Your task to perform on an android device: Open Android settings Image 0: 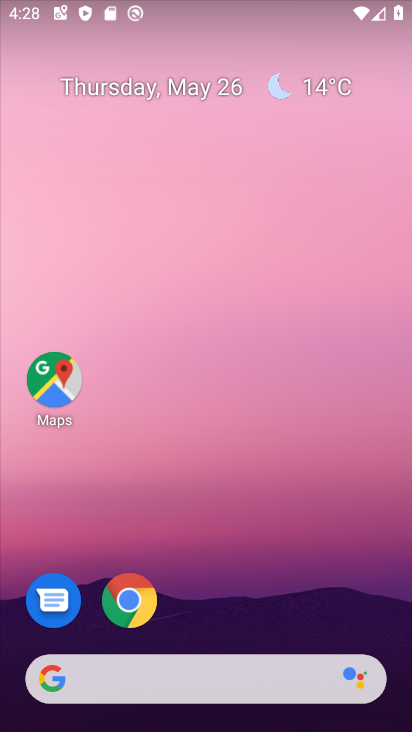
Step 0: drag from (263, 183) to (346, 166)
Your task to perform on an android device: Open Android settings Image 1: 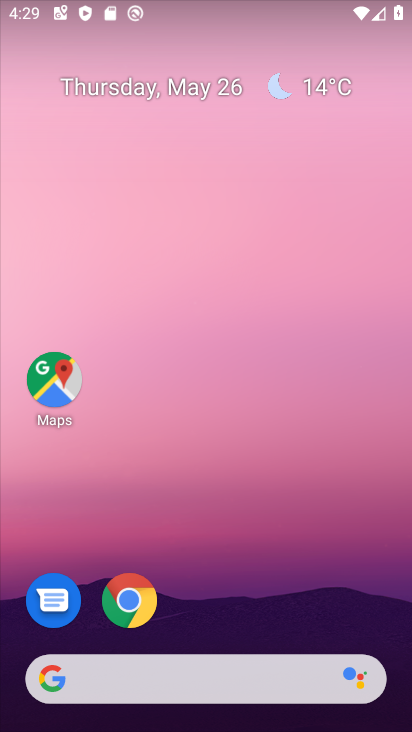
Step 1: drag from (210, 622) to (404, 147)
Your task to perform on an android device: Open Android settings Image 2: 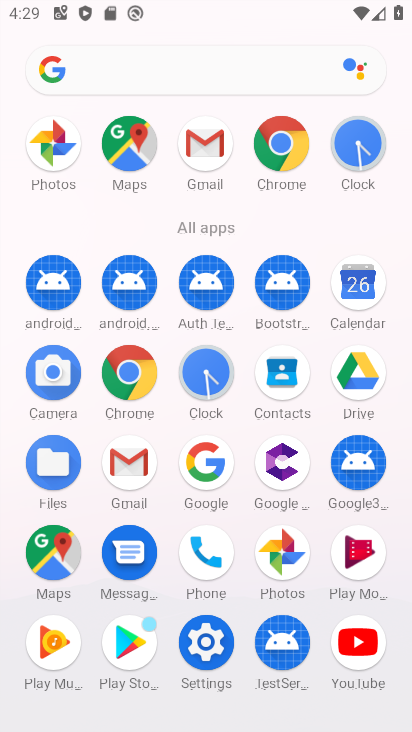
Step 2: click (207, 648)
Your task to perform on an android device: Open Android settings Image 3: 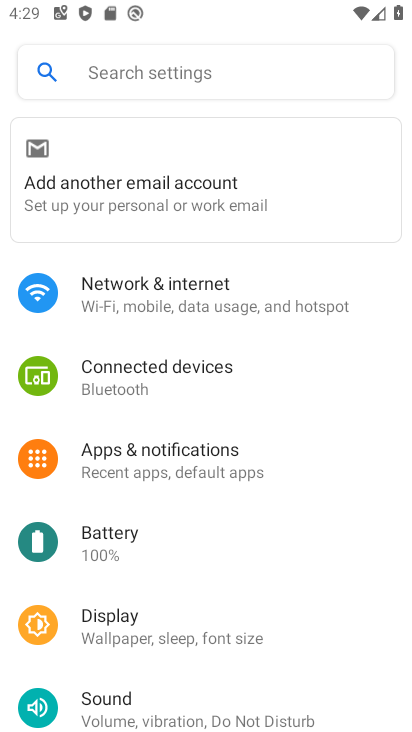
Step 3: task complete